Your task to perform on an android device: Do I have any events today? Image 0: 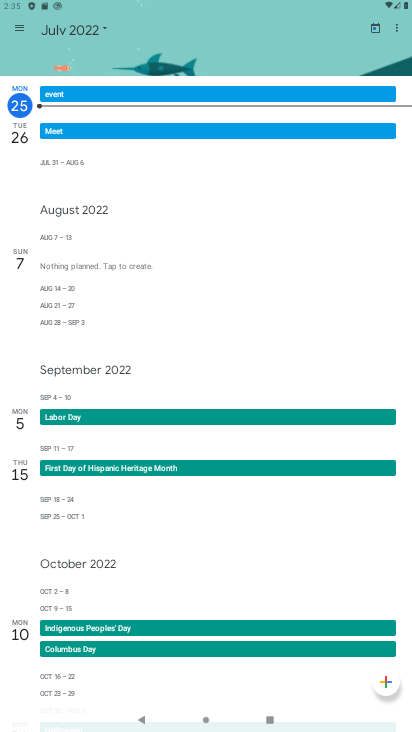
Step 0: click (74, 31)
Your task to perform on an android device: Do I have any events today? Image 1: 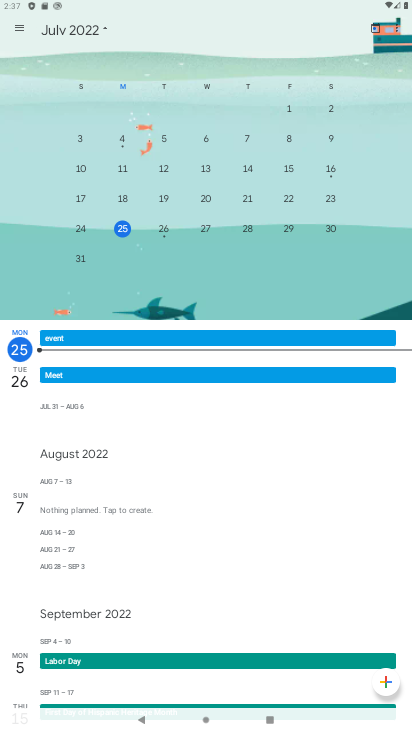
Step 1: task complete